Your task to perform on an android device: What's the weather going to be tomorrow? Image 0: 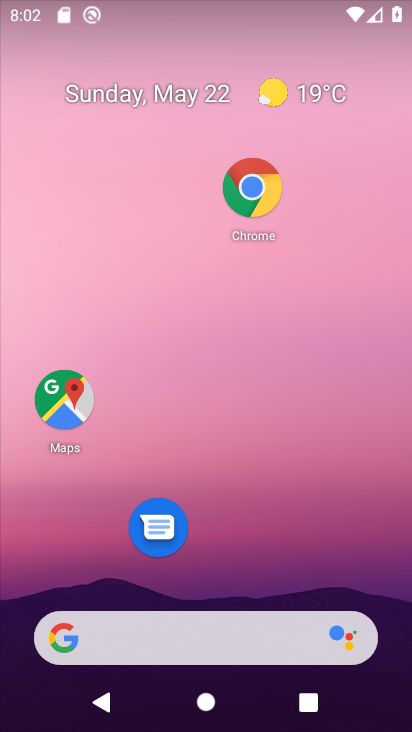
Step 0: click (306, 87)
Your task to perform on an android device: What's the weather going to be tomorrow? Image 1: 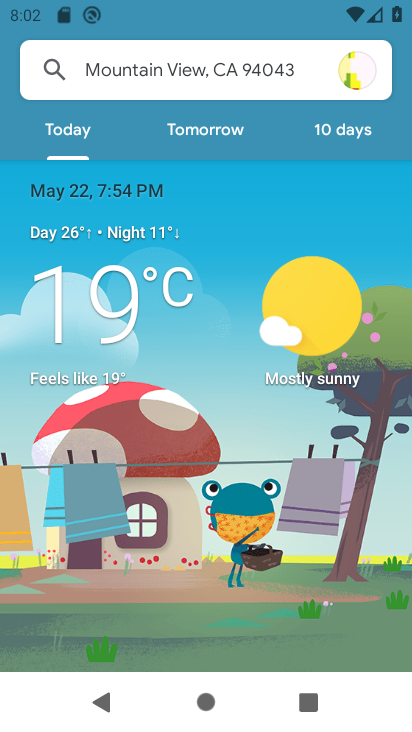
Step 1: click (212, 142)
Your task to perform on an android device: What's the weather going to be tomorrow? Image 2: 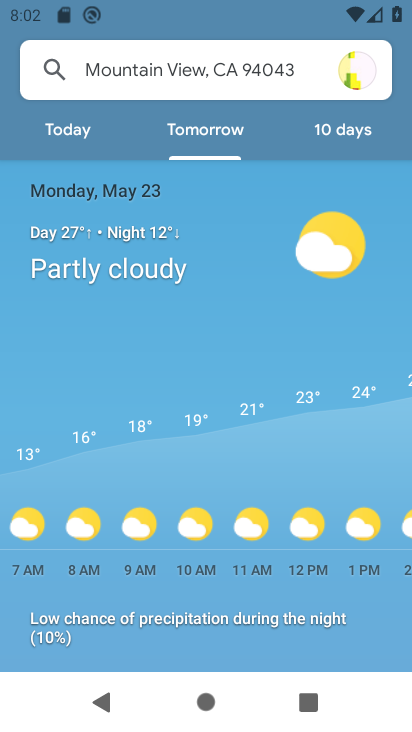
Step 2: task complete